Your task to perform on an android device: remove spam from my inbox in the gmail app Image 0: 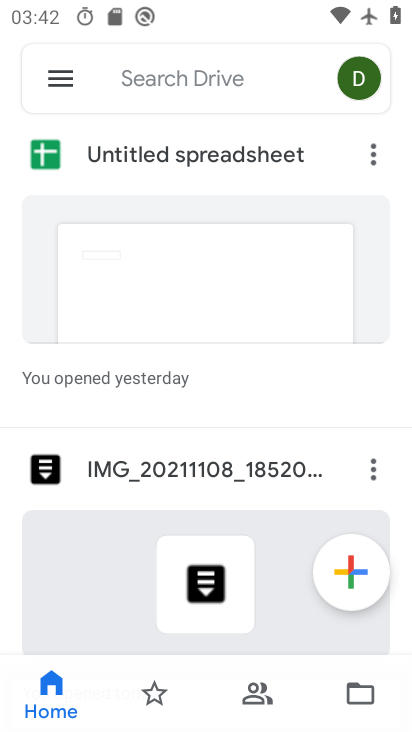
Step 0: press home button
Your task to perform on an android device: remove spam from my inbox in the gmail app Image 1: 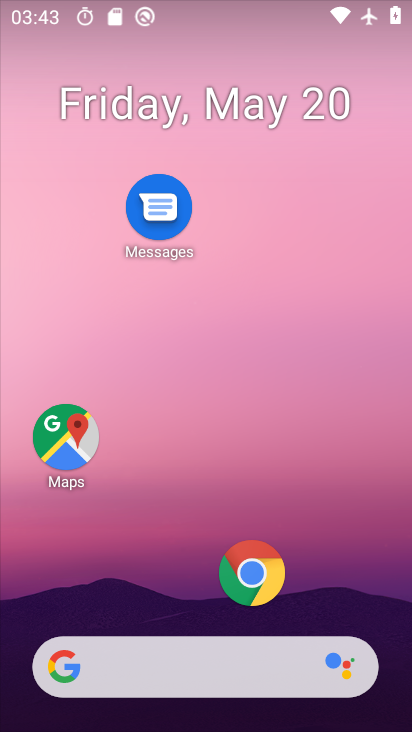
Step 1: drag from (181, 618) to (222, 193)
Your task to perform on an android device: remove spam from my inbox in the gmail app Image 2: 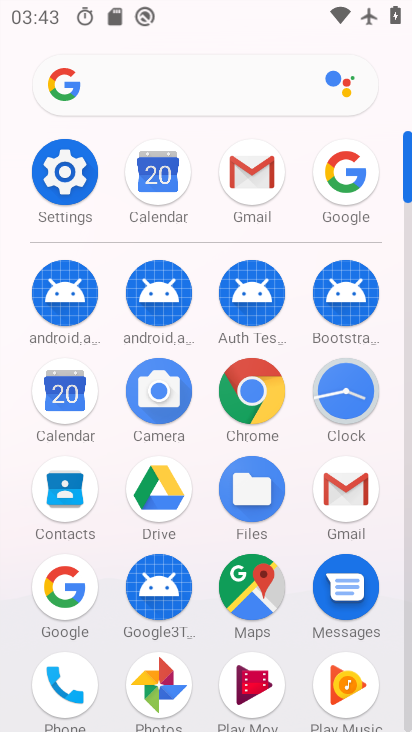
Step 2: click (347, 495)
Your task to perform on an android device: remove spam from my inbox in the gmail app Image 3: 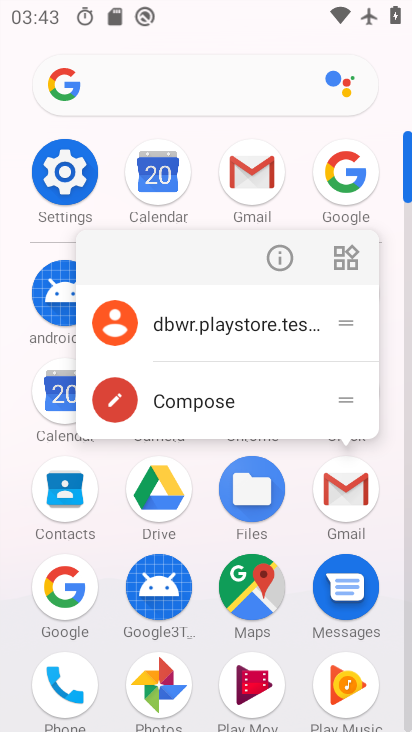
Step 3: click (355, 486)
Your task to perform on an android device: remove spam from my inbox in the gmail app Image 4: 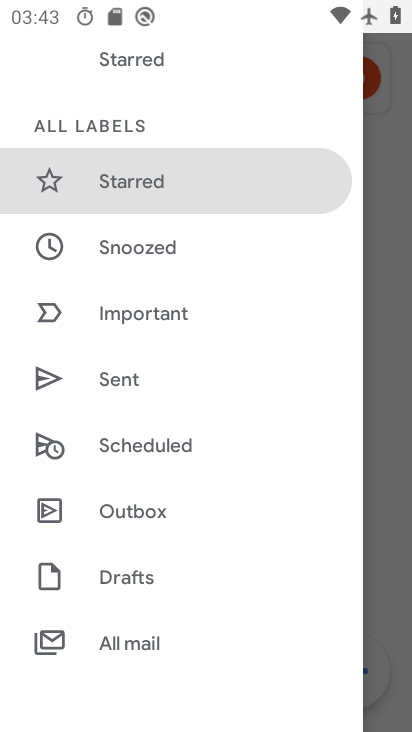
Step 4: drag from (179, 617) to (194, 315)
Your task to perform on an android device: remove spam from my inbox in the gmail app Image 5: 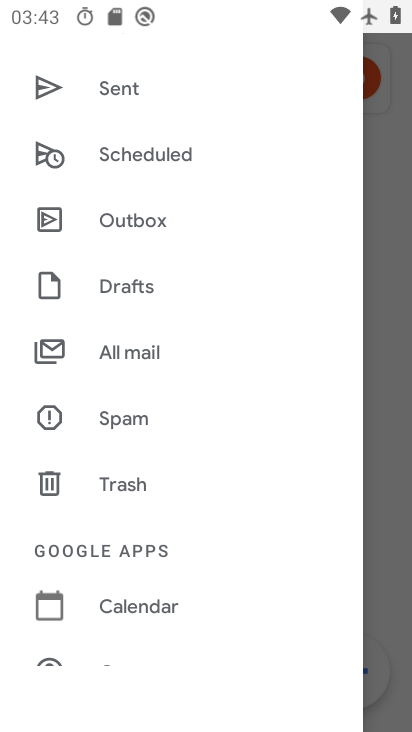
Step 5: click (132, 429)
Your task to perform on an android device: remove spam from my inbox in the gmail app Image 6: 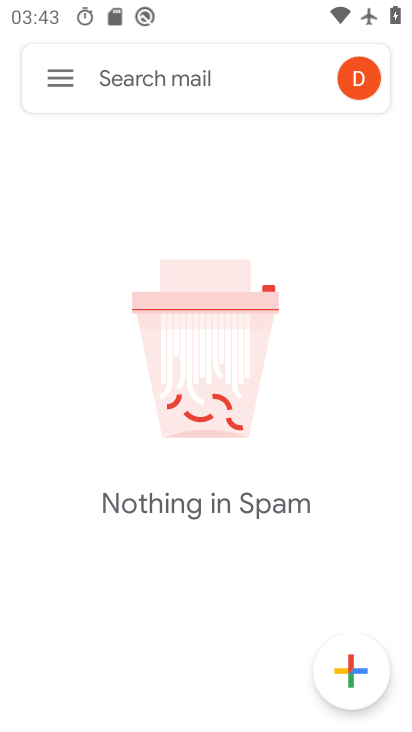
Step 6: task complete